Your task to perform on an android device: find which apps use the phone's location Image 0: 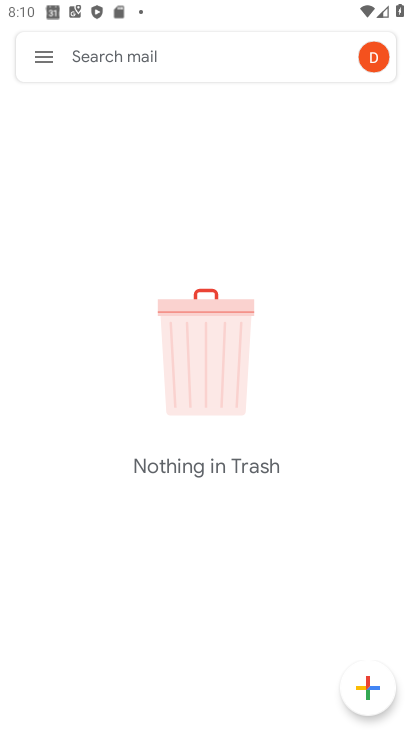
Step 0: press home button
Your task to perform on an android device: find which apps use the phone's location Image 1: 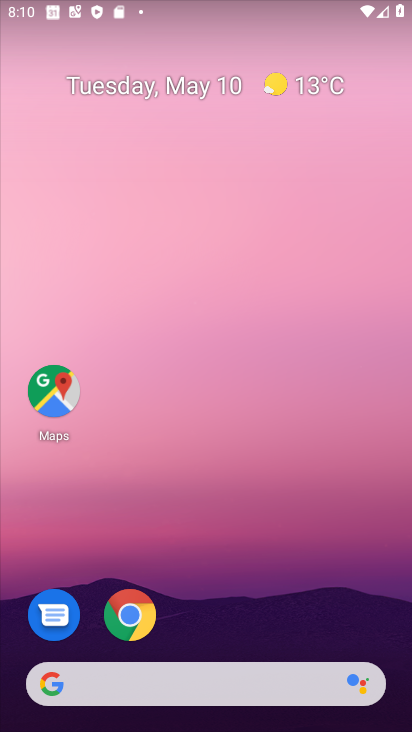
Step 1: drag from (217, 487) to (122, 47)
Your task to perform on an android device: find which apps use the phone's location Image 2: 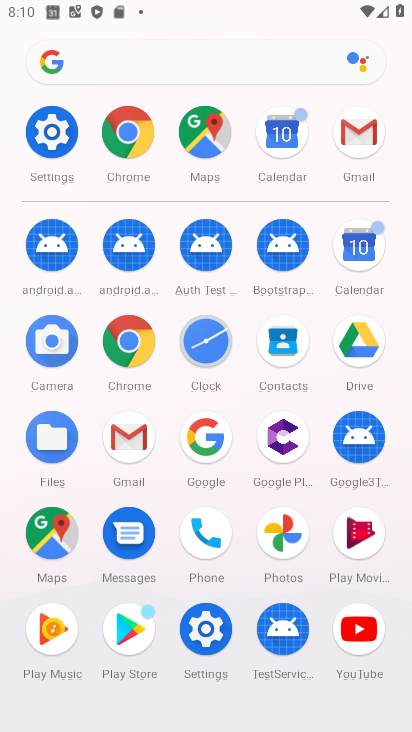
Step 2: click (50, 139)
Your task to perform on an android device: find which apps use the phone's location Image 3: 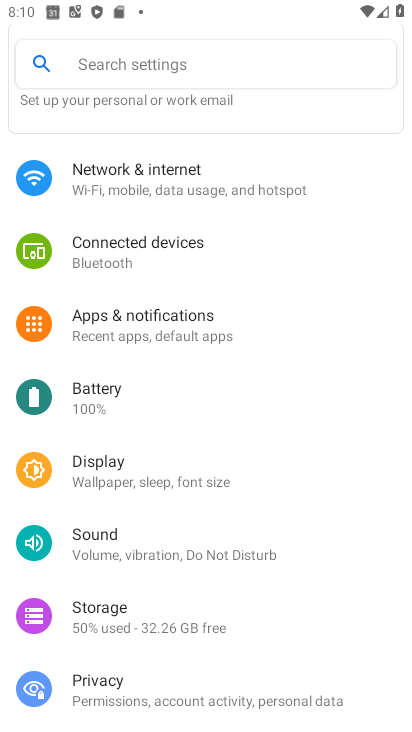
Step 3: drag from (242, 450) to (209, 201)
Your task to perform on an android device: find which apps use the phone's location Image 4: 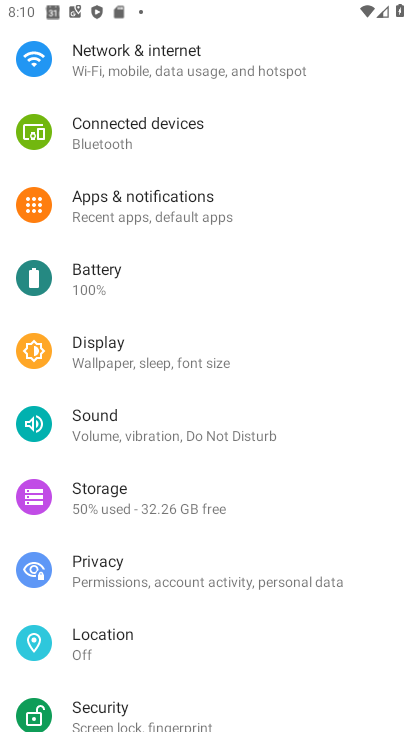
Step 4: click (92, 637)
Your task to perform on an android device: find which apps use the phone's location Image 5: 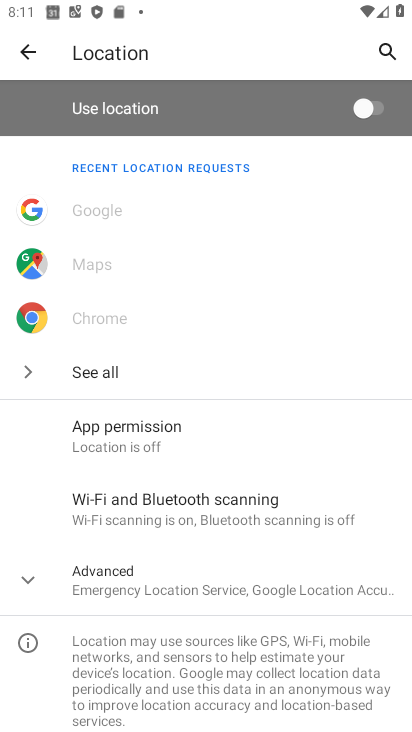
Step 5: task complete